Your task to perform on an android device: Go to accessibility settings Image 0: 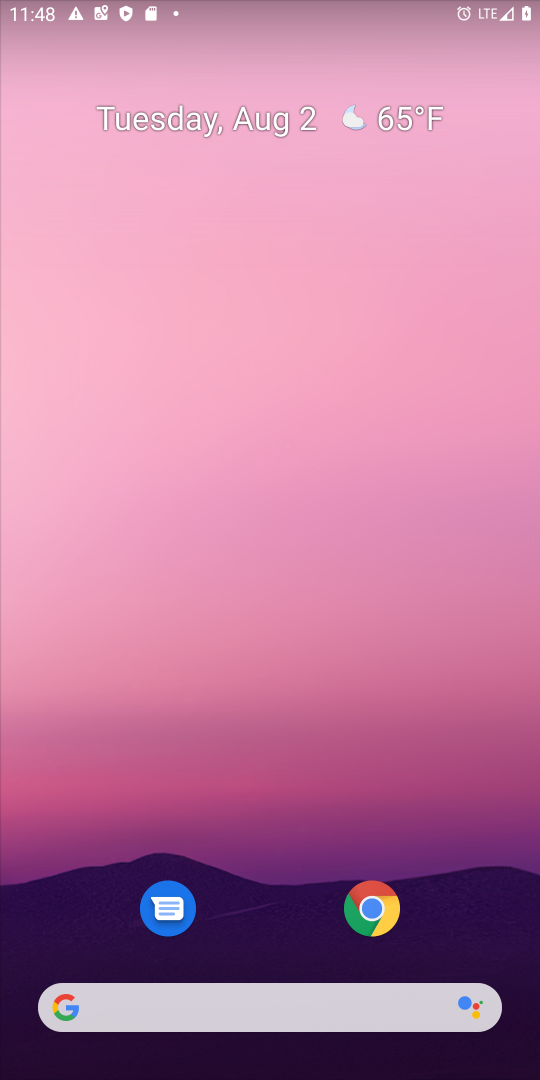
Step 0: drag from (262, 808) to (275, 238)
Your task to perform on an android device: Go to accessibility settings Image 1: 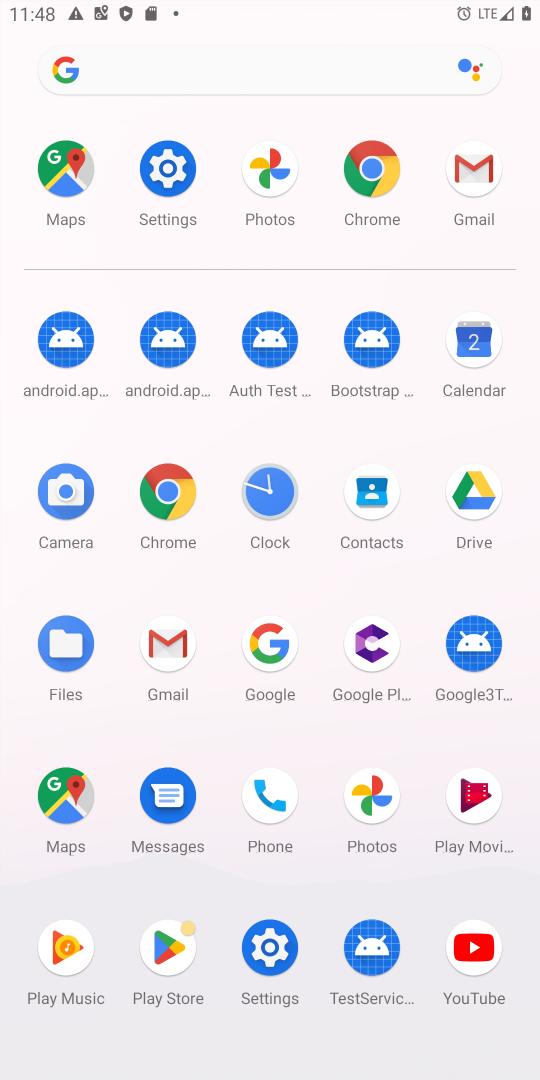
Step 1: click (276, 962)
Your task to perform on an android device: Go to accessibility settings Image 2: 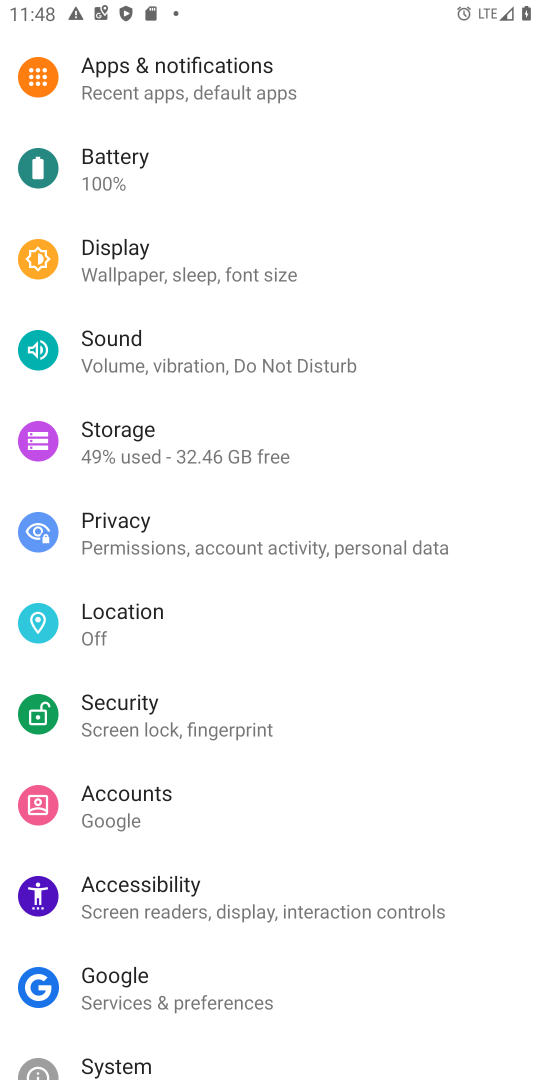
Step 2: click (295, 910)
Your task to perform on an android device: Go to accessibility settings Image 3: 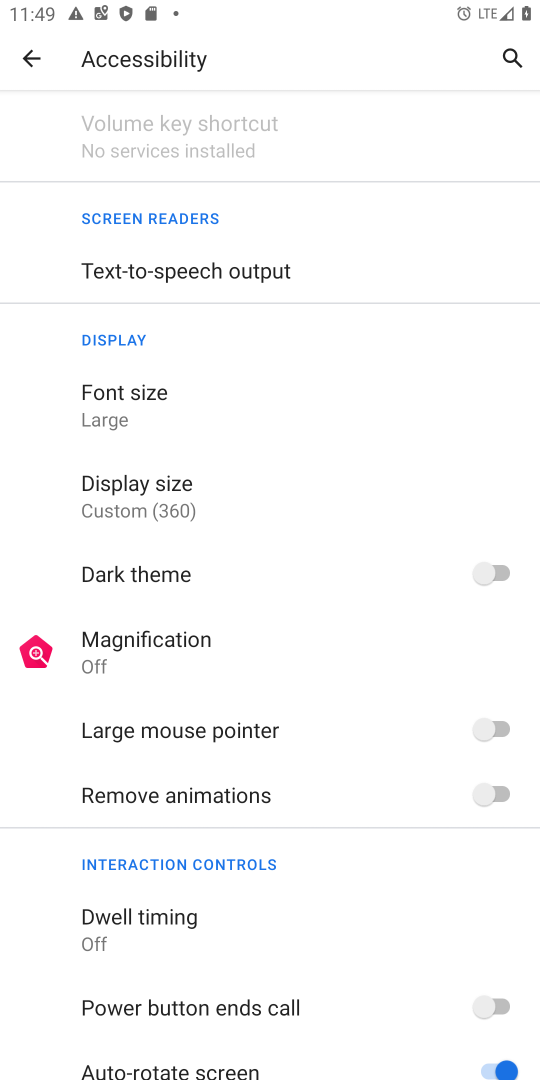
Step 3: task complete